Your task to perform on an android device: toggle airplane mode Image 0: 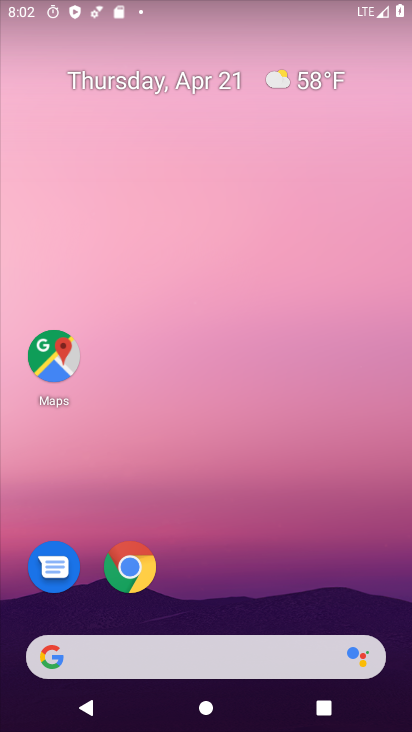
Step 0: drag from (234, 548) to (243, 25)
Your task to perform on an android device: toggle airplane mode Image 1: 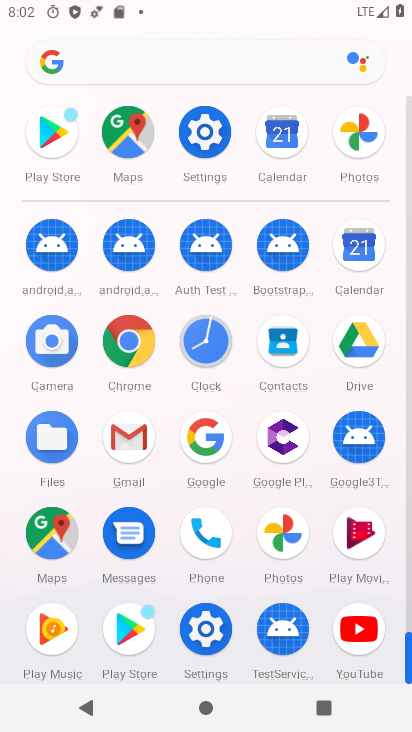
Step 1: click (205, 125)
Your task to perform on an android device: toggle airplane mode Image 2: 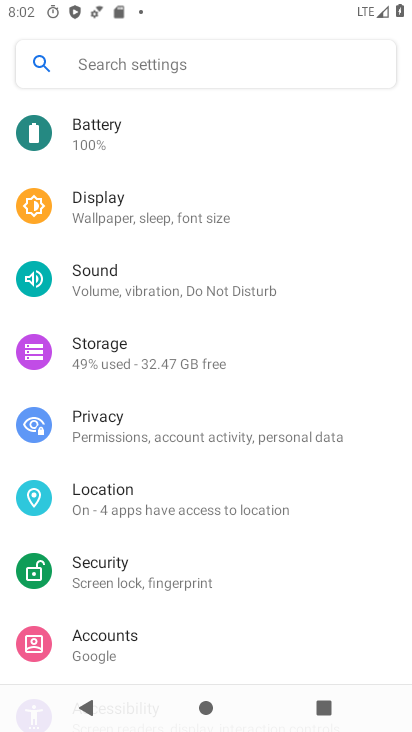
Step 2: drag from (263, 270) to (264, 414)
Your task to perform on an android device: toggle airplane mode Image 3: 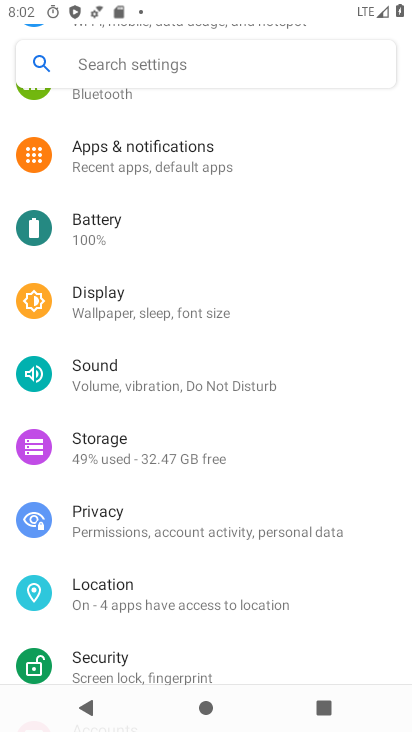
Step 3: drag from (250, 227) to (263, 422)
Your task to perform on an android device: toggle airplane mode Image 4: 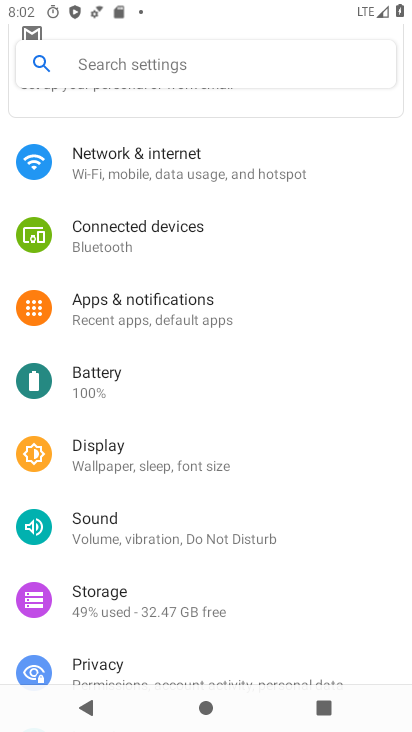
Step 4: click (194, 176)
Your task to perform on an android device: toggle airplane mode Image 5: 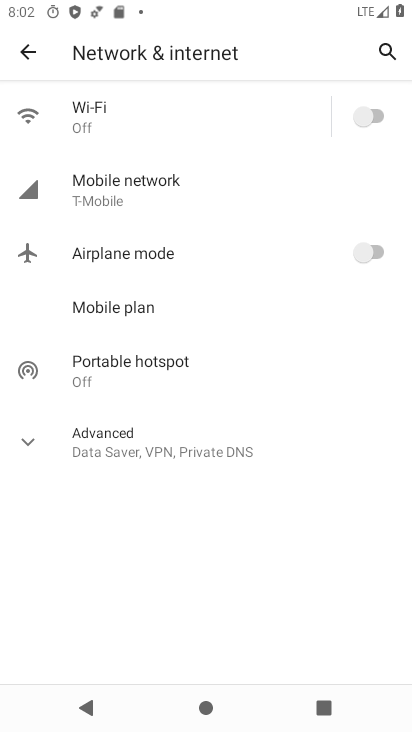
Step 5: click (365, 259)
Your task to perform on an android device: toggle airplane mode Image 6: 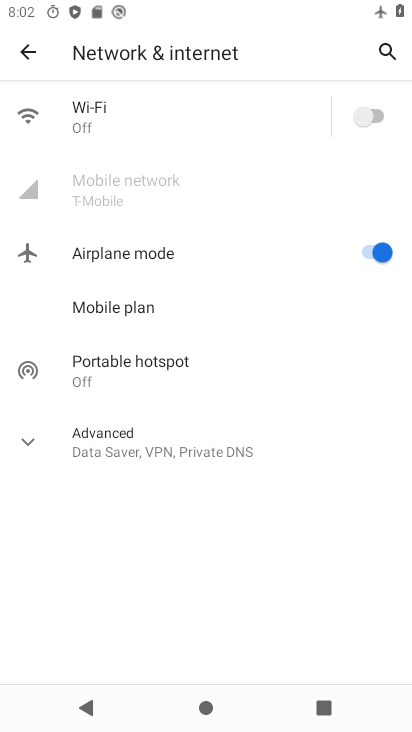
Step 6: task complete